Your task to perform on an android device: Do I have any events today? Image 0: 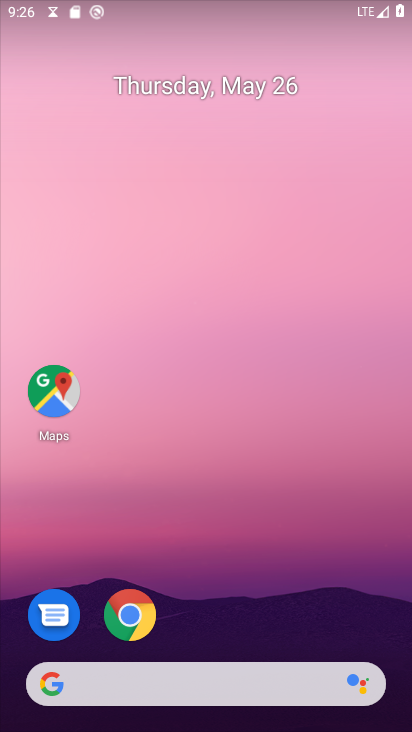
Step 0: drag from (237, 598) to (248, 117)
Your task to perform on an android device: Do I have any events today? Image 1: 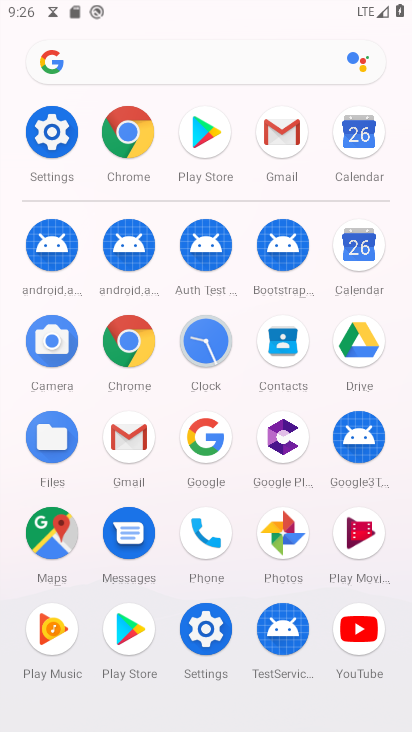
Step 1: click (361, 245)
Your task to perform on an android device: Do I have any events today? Image 2: 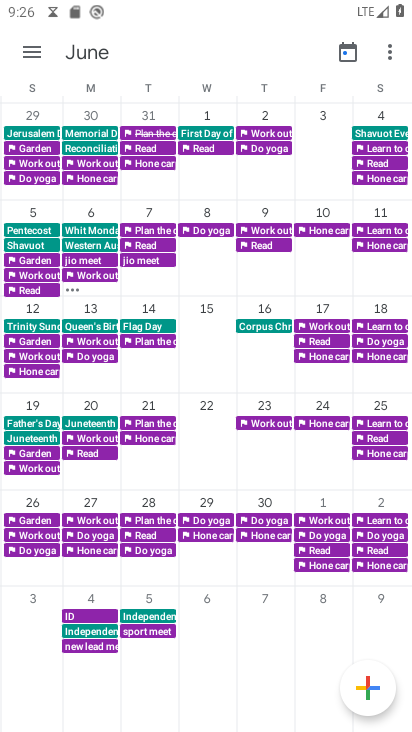
Step 2: drag from (28, 329) to (362, 326)
Your task to perform on an android device: Do I have any events today? Image 3: 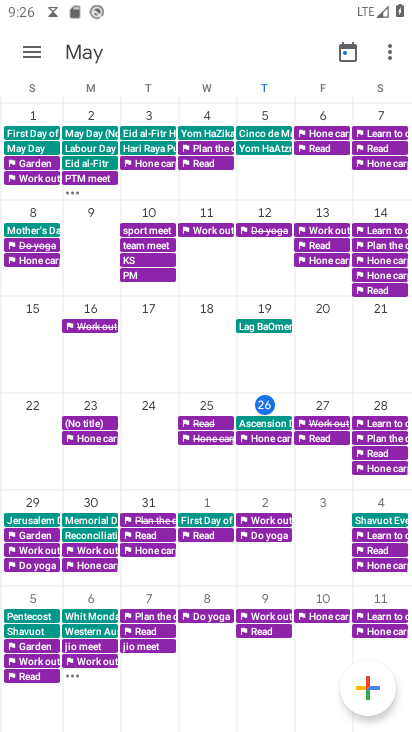
Step 3: click (315, 408)
Your task to perform on an android device: Do I have any events today? Image 4: 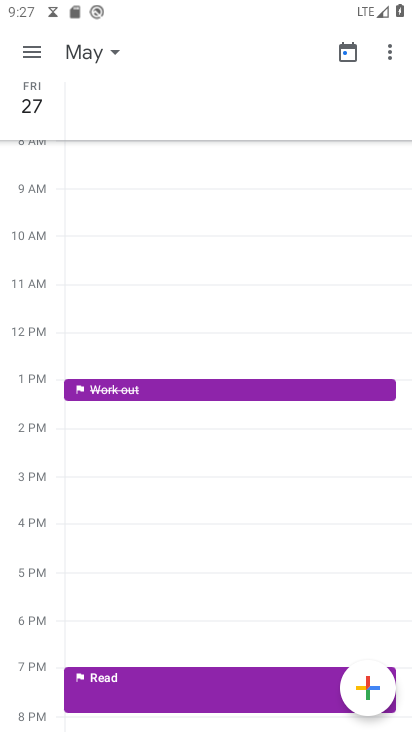
Step 4: task complete